Your task to perform on an android device: check storage Image 0: 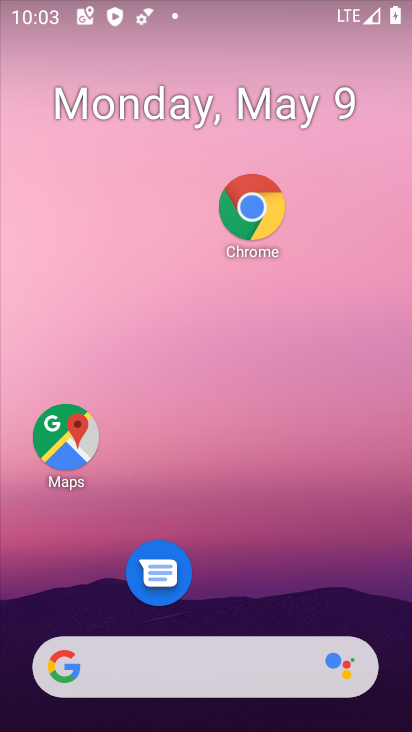
Step 0: drag from (235, 638) to (344, 94)
Your task to perform on an android device: check storage Image 1: 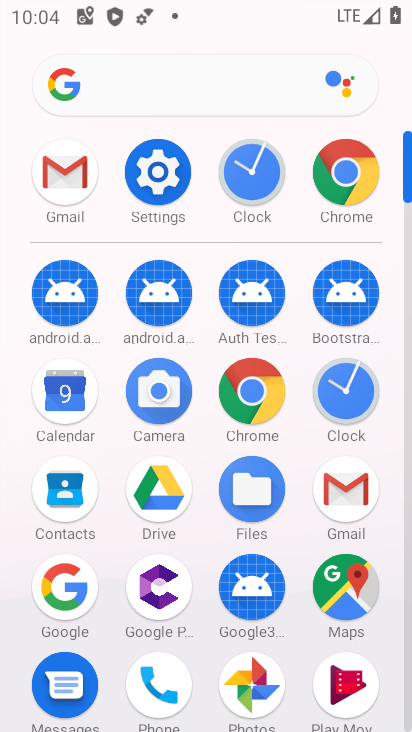
Step 1: click (168, 195)
Your task to perform on an android device: check storage Image 2: 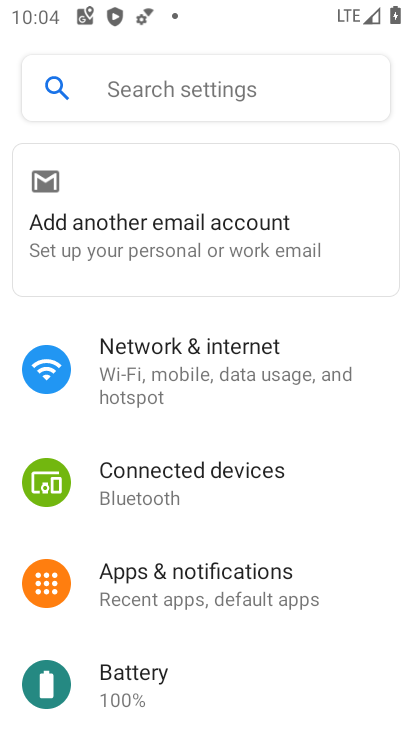
Step 2: drag from (211, 585) to (251, 290)
Your task to perform on an android device: check storage Image 3: 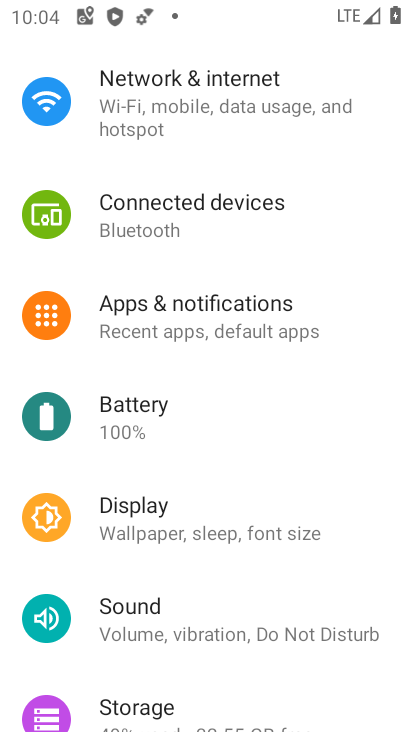
Step 3: drag from (197, 595) to (198, 369)
Your task to perform on an android device: check storage Image 4: 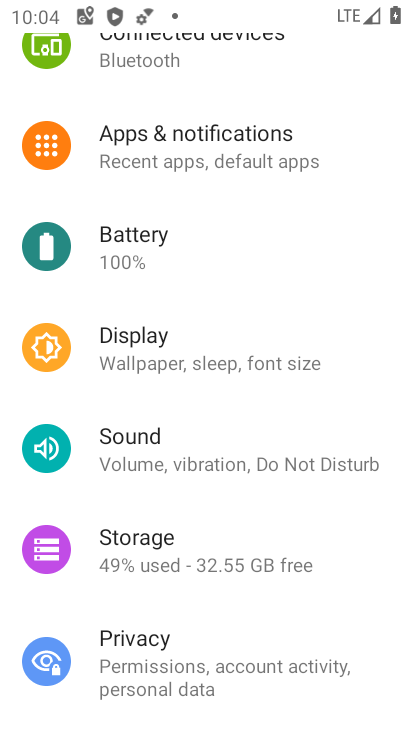
Step 4: click (163, 541)
Your task to perform on an android device: check storage Image 5: 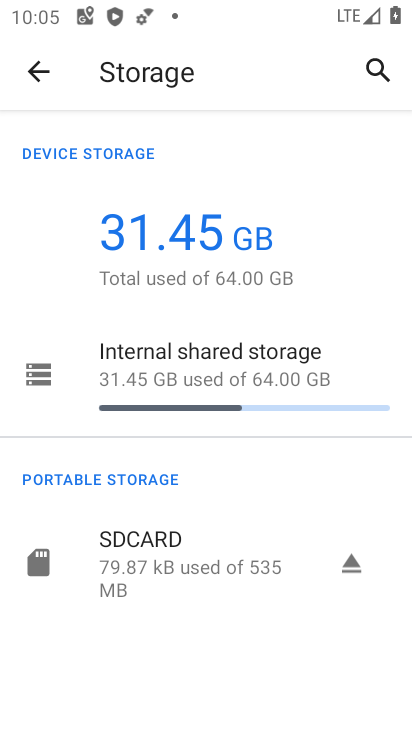
Step 5: click (238, 389)
Your task to perform on an android device: check storage Image 6: 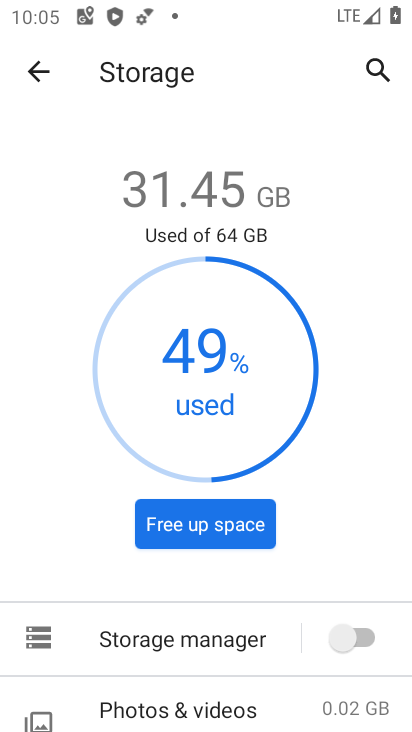
Step 6: task complete